Your task to perform on an android device: Open maps Image 0: 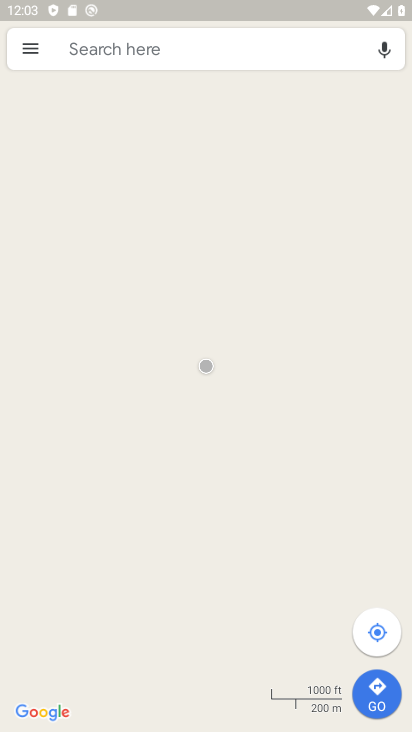
Step 0: press home button
Your task to perform on an android device: Open maps Image 1: 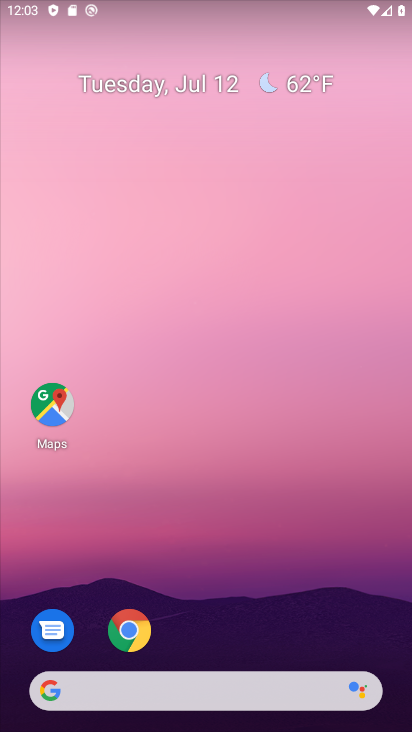
Step 1: click (54, 405)
Your task to perform on an android device: Open maps Image 2: 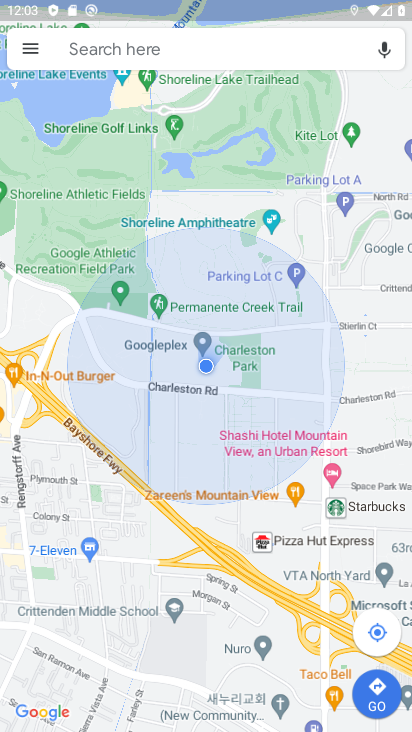
Step 2: task complete